Your task to perform on an android device: Open internet settings Image 0: 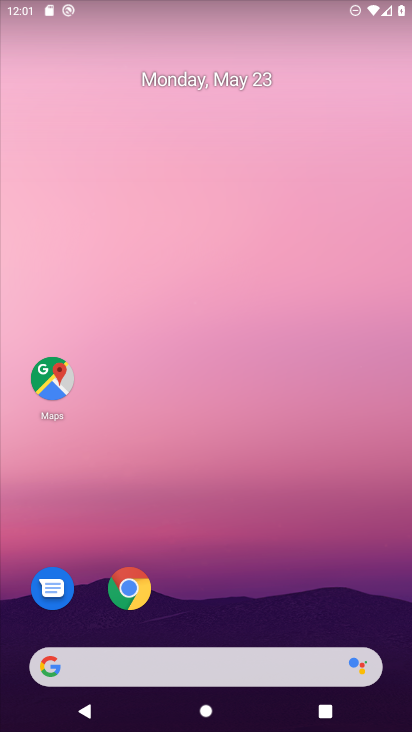
Step 0: press home button
Your task to perform on an android device: Open internet settings Image 1: 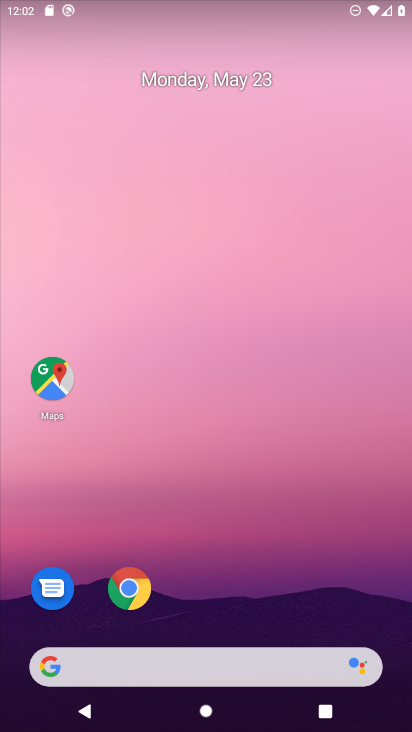
Step 1: drag from (272, 671) to (222, 183)
Your task to perform on an android device: Open internet settings Image 2: 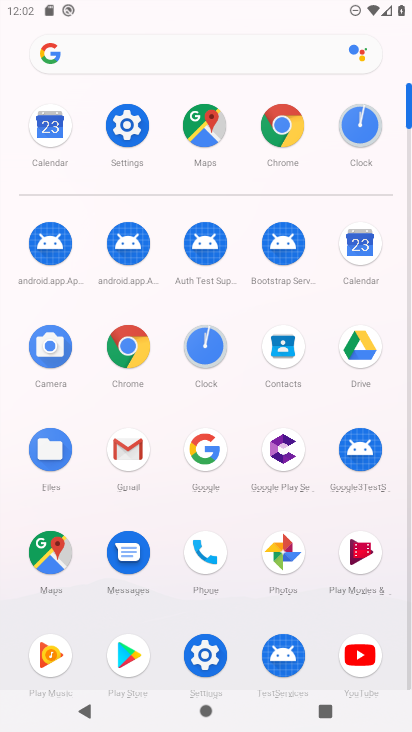
Step 2: click (211, 657)
Your task to perform on an android device: Open internet settings Image 3: 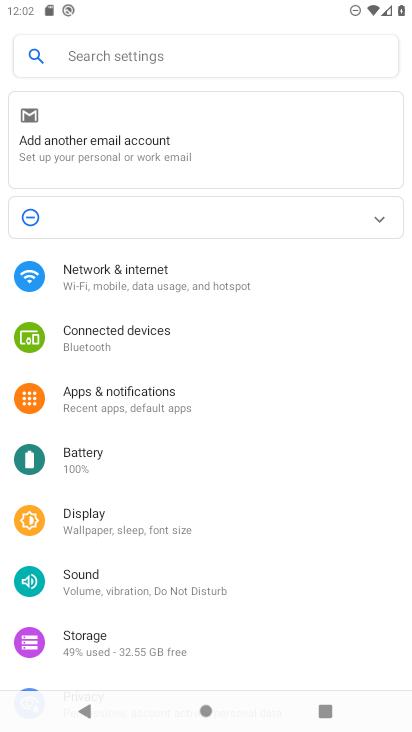
Step 3: click (133, 296)
Your task to perform on an android device: Open internet settings Image 4: 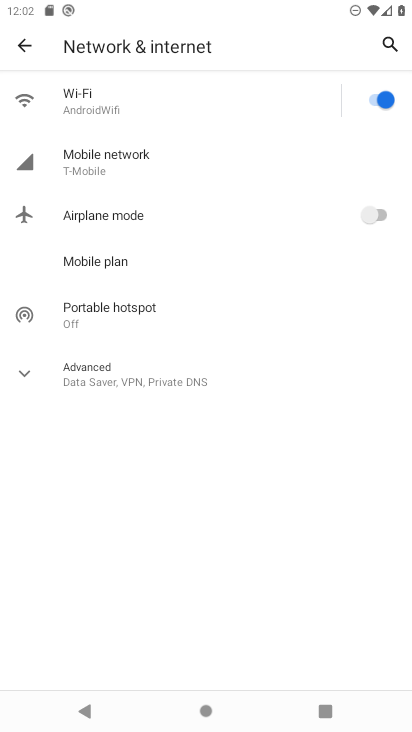
Step 4: task complete